Your task to perform on an android device: Open my contact list Image 0: 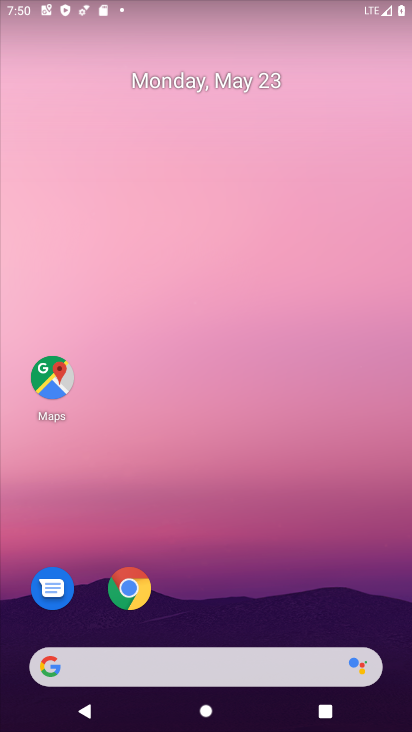
Step 0: drag from (389, 650) to (336, 262)
Your task to perform on an android device: Open my contact list Image 1: 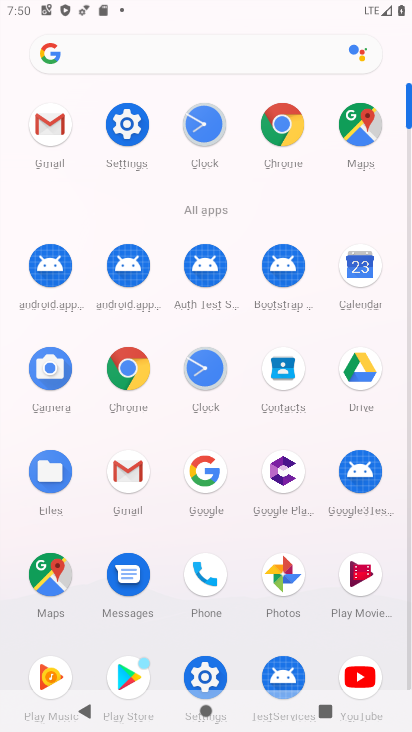
Step 1: click (272, 365)
Your task to perform on an android device: Open my contact list Image 2: 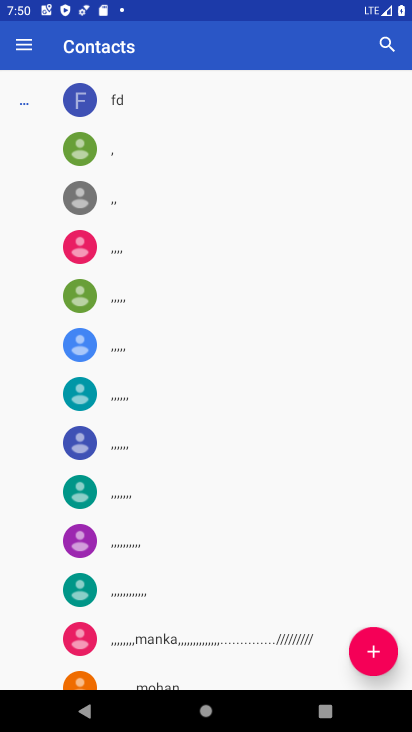
Step 2: task complete